Your task to perform on an android device: Open Reddit.com Image 0: 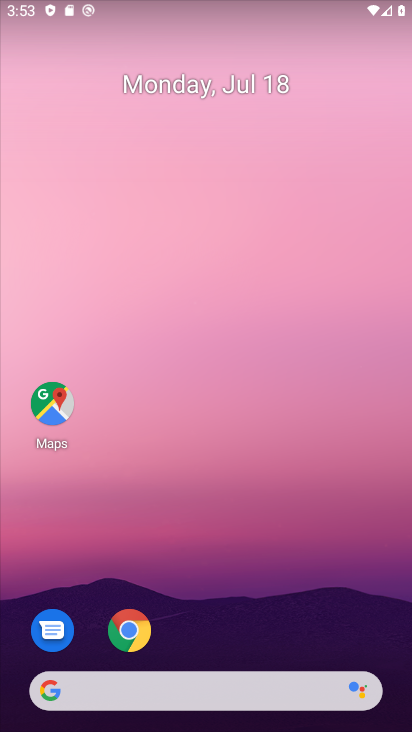
Step 0: drag from (306, 665) to (253, 17)
Your task to perform on an android device: Open Reddit.com Image 1: 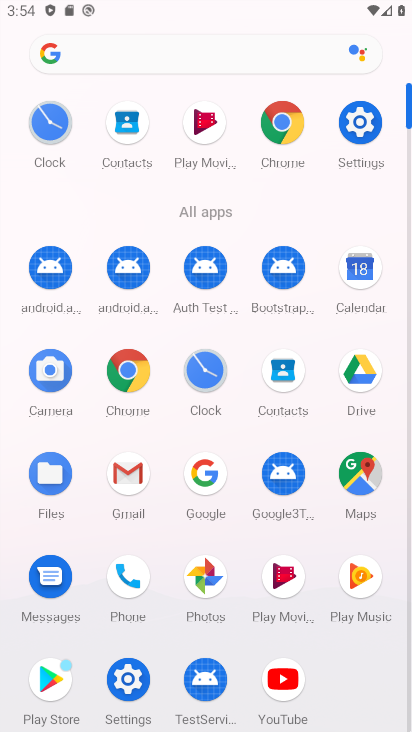
Step 1: click (277, 128)
Your task to perform on an android device: Open Reddit.com Image 2: 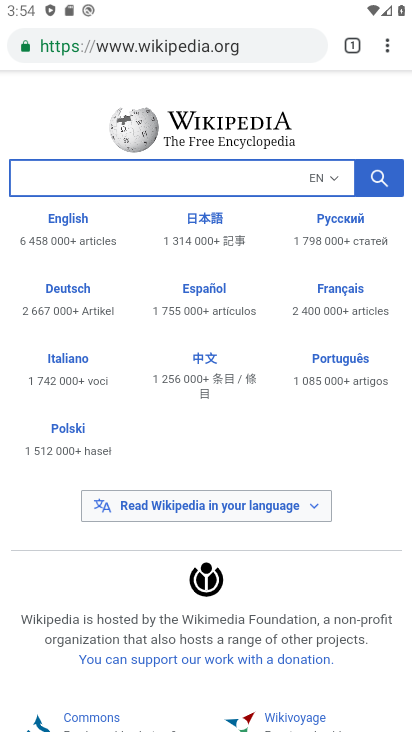
Step 2: click (208, 46)
Your task to perform on an android device: Open Reddit.com Image 3: 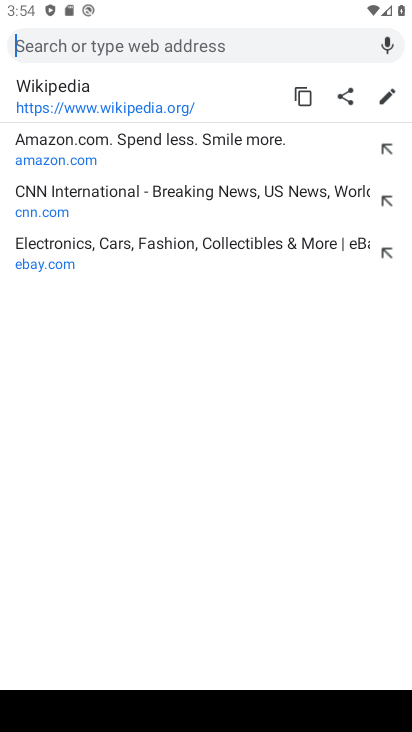
Step 3: type "reddit.com"
Your task to perform on an android device: Open Reddit.com Image 4: 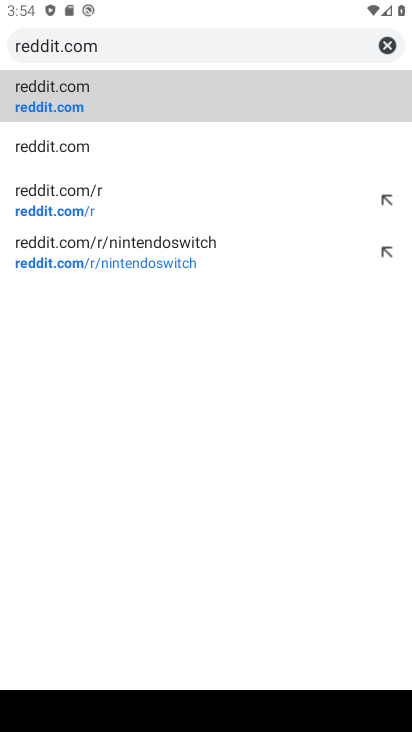
Step 4: click (56, 111)
Your task to perform on an android device: Open Reddit.com Image 5: 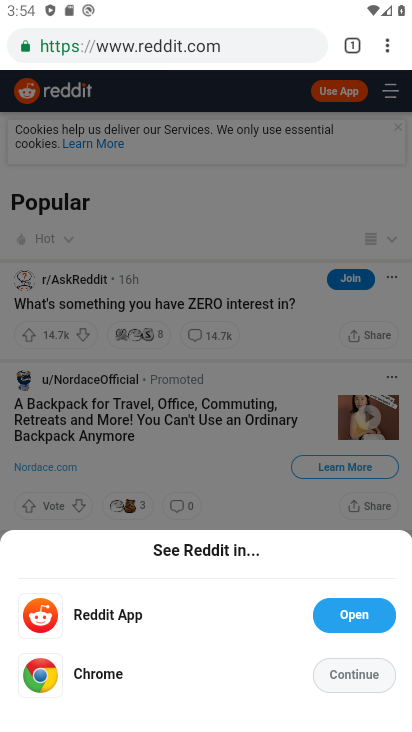
Step 5: task complete